Your task to perform on an android device: What's the weather? Image 0: 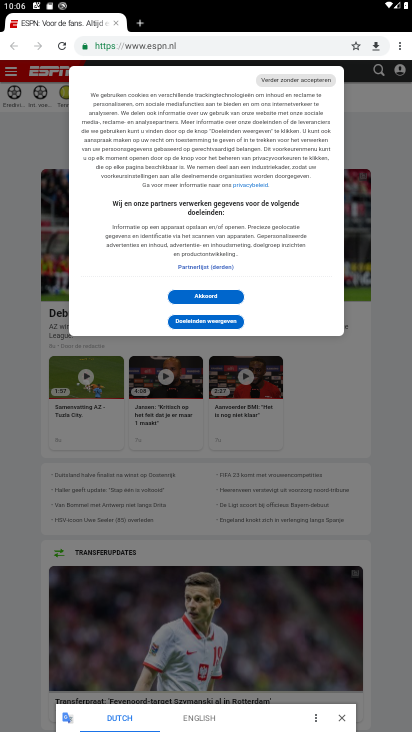
Step 0: press home button
Your task to perform on an android device: What's the weather? Image 1: 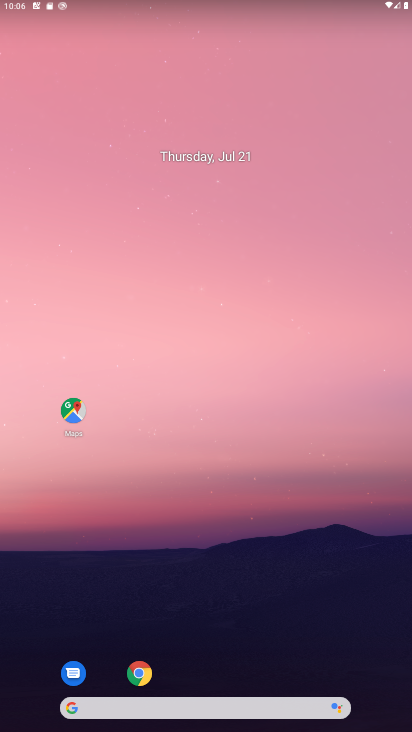
Step 1: drag from (200, 652) to (248, 159)
Your task to perform on an android device: What's the weather? Image 2: 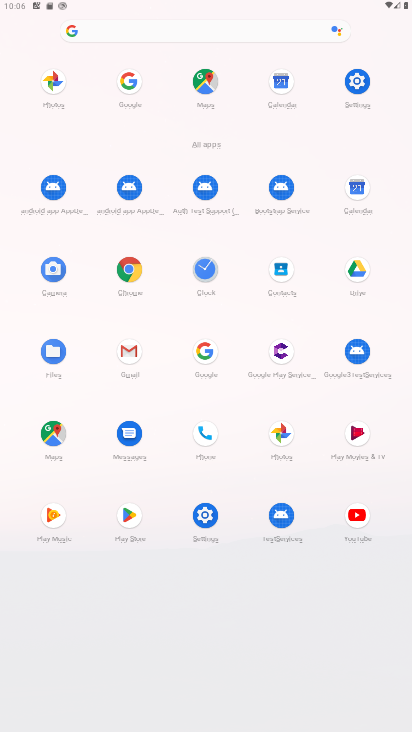
Step 2: click (127, 81)
Your task to perform on an android device: What's the weather? Image 3: 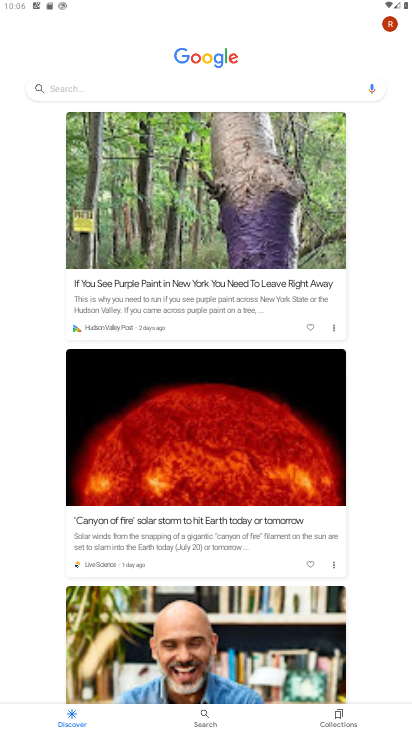
Step 3: click (134, 87)
Your task to perform on an android device: What's the weather? Image 4: 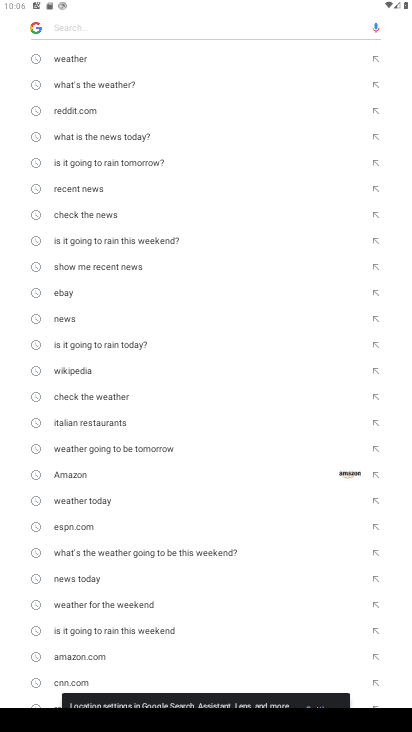
Step 4: click (60, 61)
Your task to perform on an android device: What's the weather? Image 5: 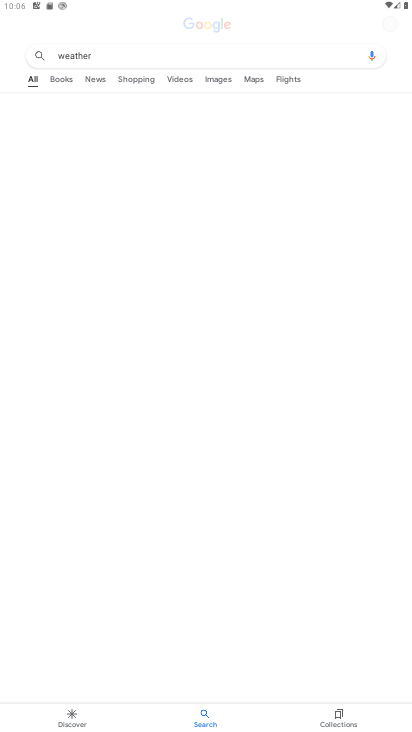
Step 5: task complete